Your task to perform on an android device: change the clock display to digital Image 0: 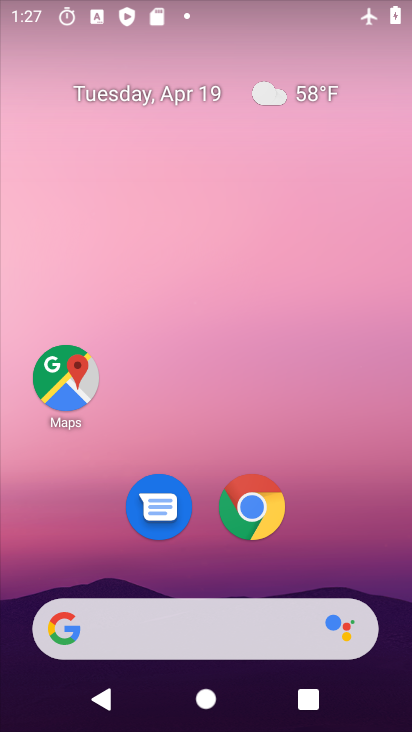
Step 0: drag from (208, 556) to (198, 129)
Your task to perform on an android device: change the clock display to digital Image 1: 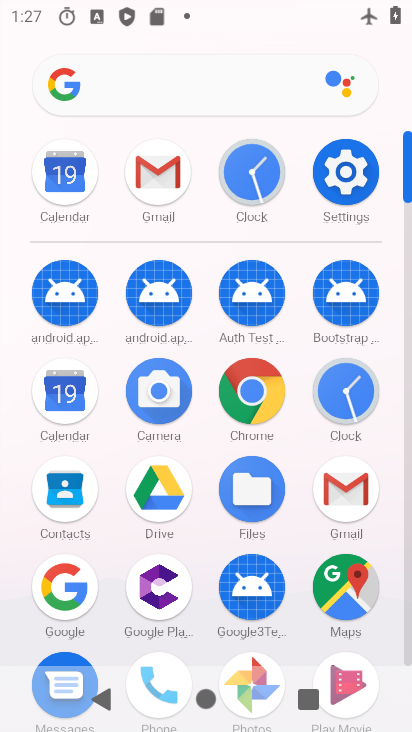
Step 1: click (343, 395)
Your task to perform on an android device: change the clock display to digital Image 2: 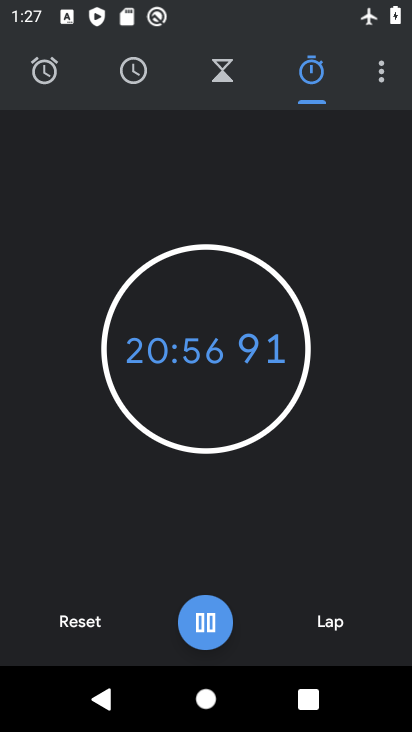
Step 2: click (375, 75)
Your task to perform on an android device: change the clock display to digital Image 3: 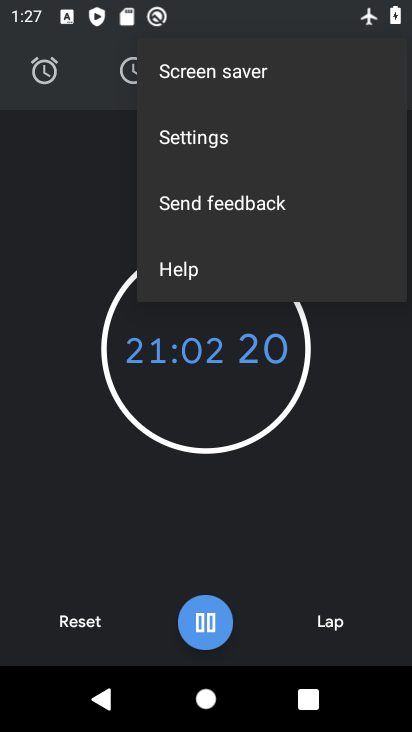
Step 3: click (210, 135)
Your task to perform on an android device: change the clock display to digital Image 4: 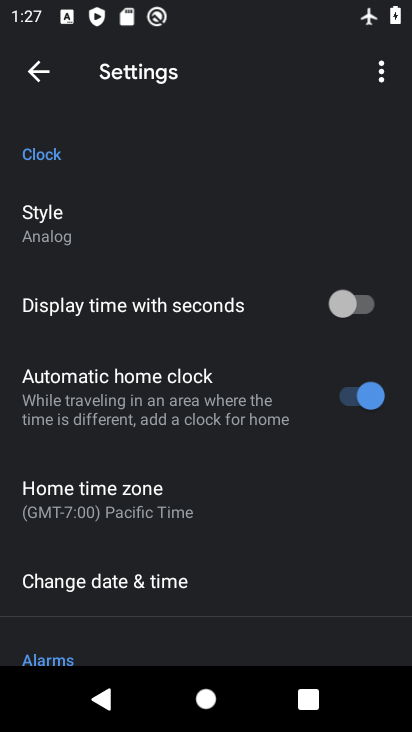
Step 4: click (134, 225)
Your task to perform on an android device: change the clock display to digital Image 5: 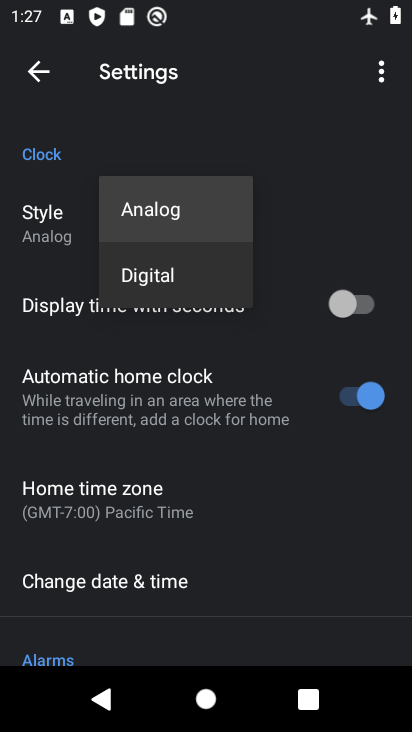
Step 5: click (154, 276)
Your task to perform on an android device: change the clock display to digital Image 6: 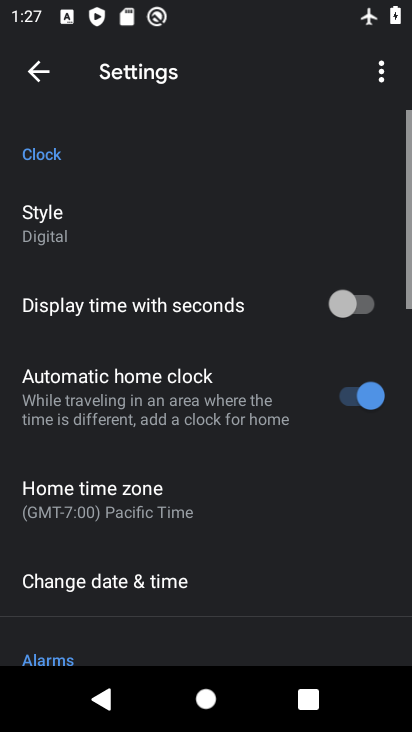
Step 6: task complete